Your task to perform on an android device: Open Wikipedia Image 0: 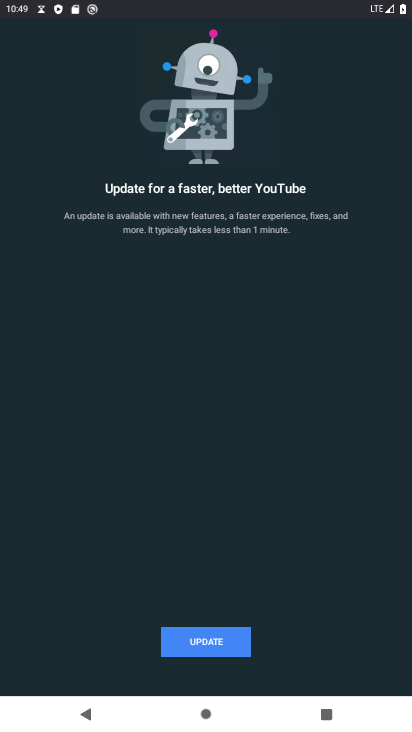
Step 0: press home button
Your task to perform on an android device: Open Wikipedia Image 1: 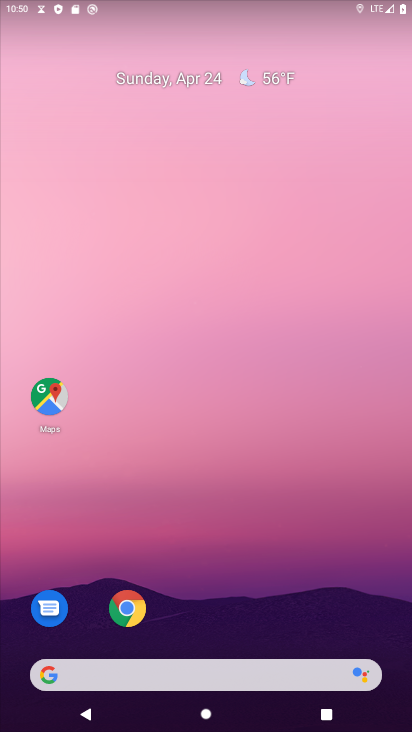
Step 1: drag from (188, 633) to (251, 6)
Your task to perform on an android device: Open Wikipedia Image 2: 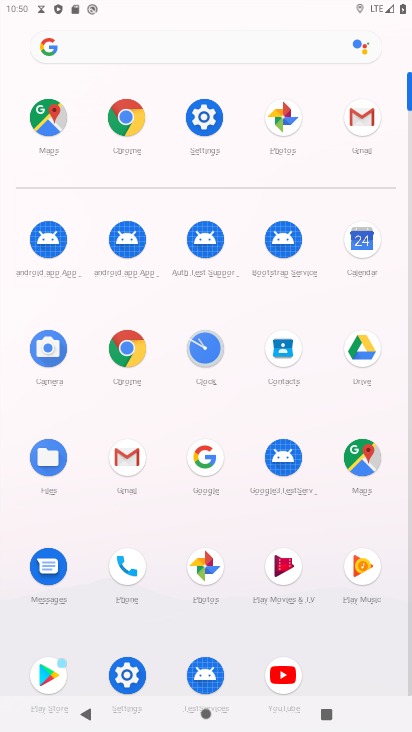
Step 2: click (123, 103)
Your task to perform on an android device: Open Wikipedia Image 3: 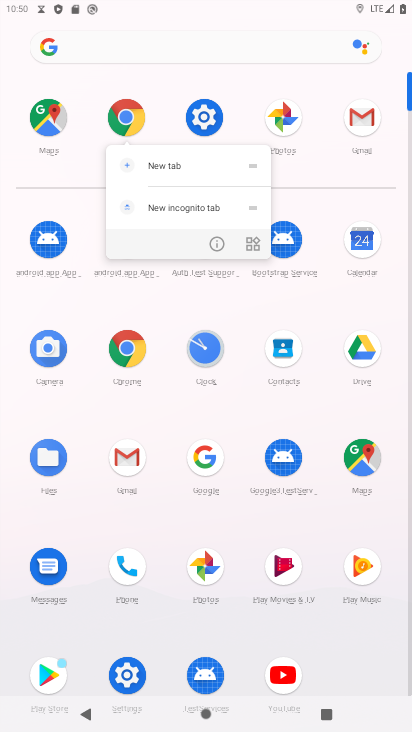
Step 3: click (124, 116)
Your task to perform on an android device: Open Wikipedia Image 4: 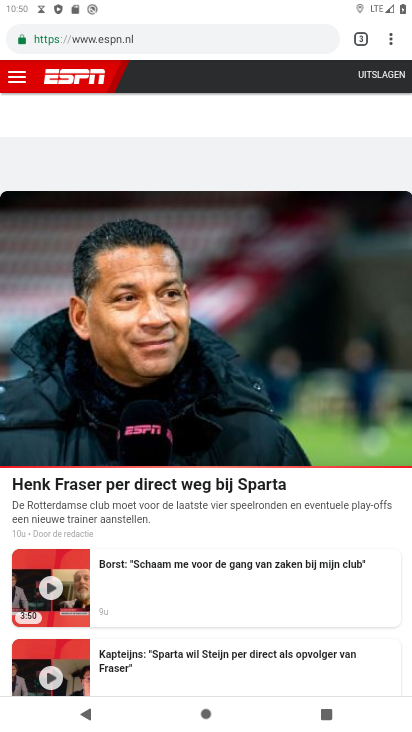
Step 4: click (355, 38)
Your task to perform on an android device: Open Wikipedia Image 5: 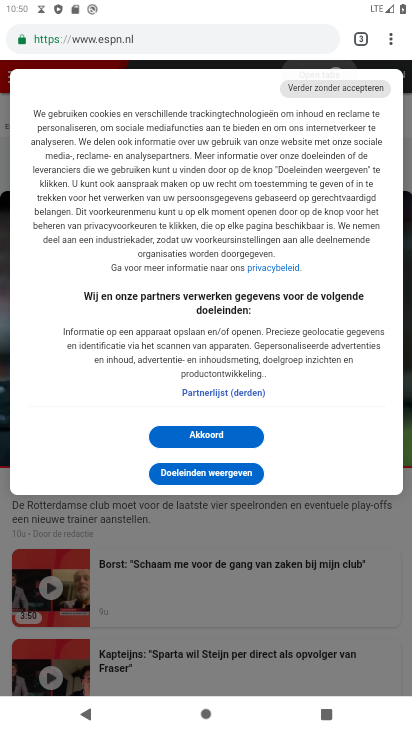
Step 5: click (353, 34)
Your task to perform on an android device: Open Wikipedia Image 6: 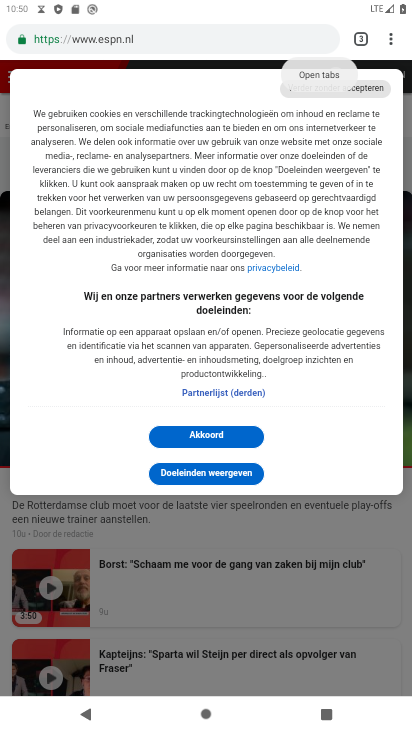
Step 6: click (353, 34)
Your task to perform on an android device: Open Wikipedia Image 7: 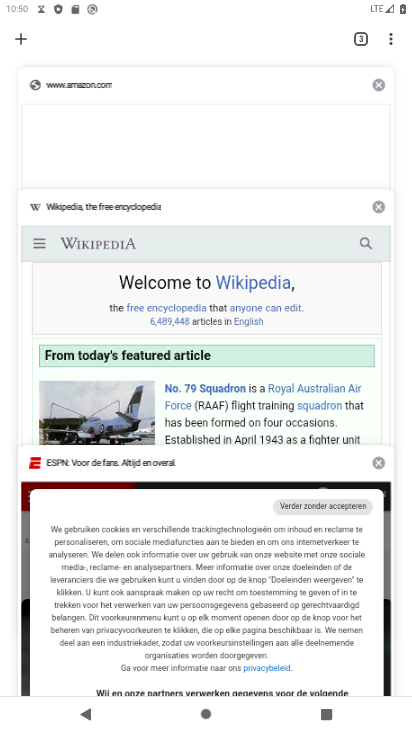
Step 7: click (358, 34)
Your task to perform on an android device: Open Wikipedia Image 8: 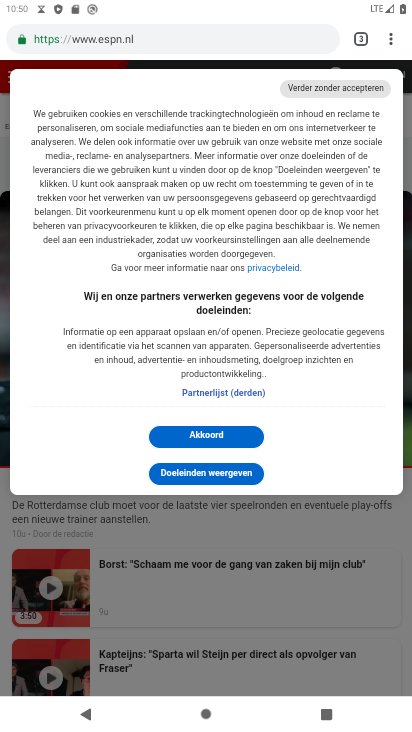
Step 8: click (358, 34)
Your task to perform on an android device: Open Wikipedia Image 9: 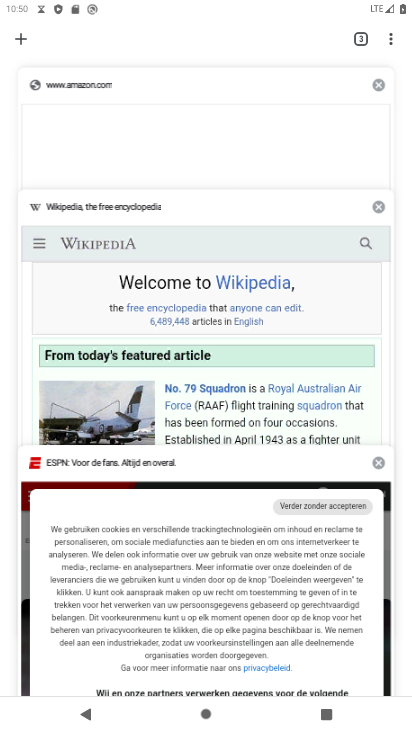
Step 9: click (23, 32)
Your task to perform on an android device: Open Wikipedia Image 10: 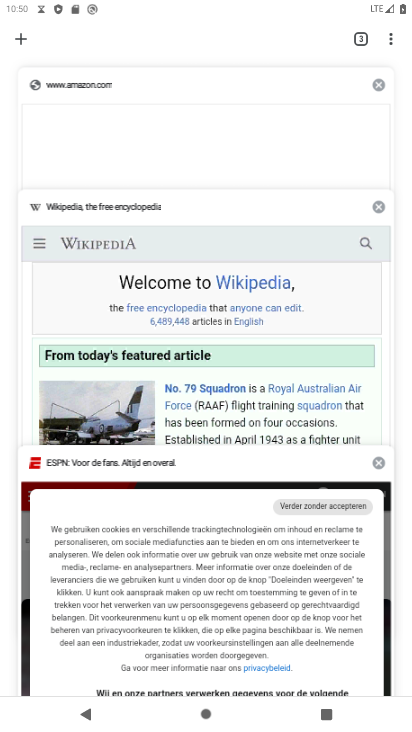
Step 10: task complete